Your task to perform on an android device: Open Google Chrome and open the bookmarks view Image 0: 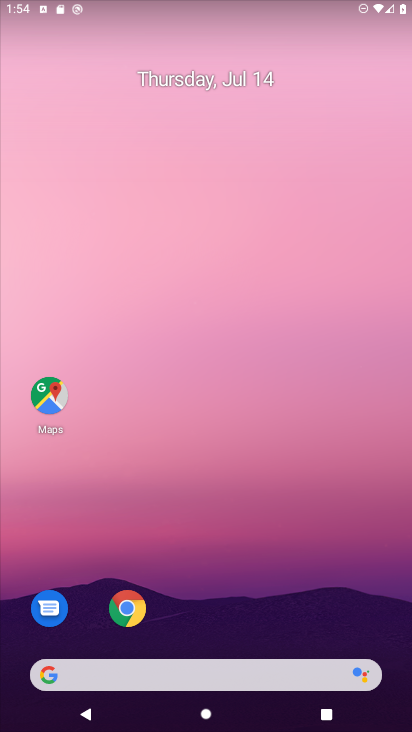
Step 0: click (126, 606)
Your task to perform on an android device: Open Google Chrome and open the bookmarks view Image 1: 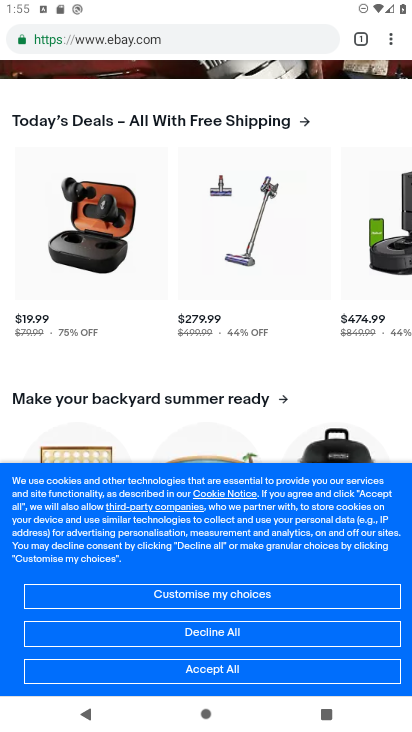
Step 1: click (389, 43)
Your task to perform on an android device: Open Google Chrome and open the bookmarks view Image 2: 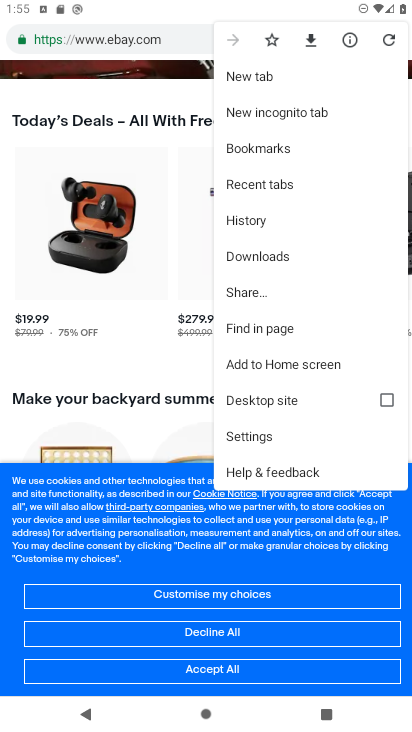
Step 2: click (249, 151)
Your task to perform on an android device: Open Google Chrome and open the bookmarks view Image 3: 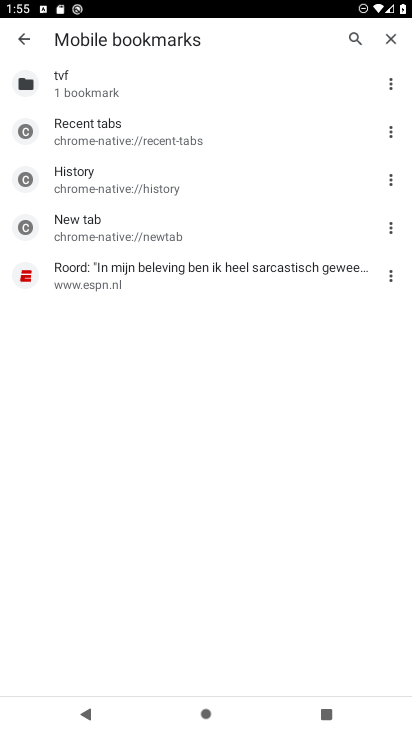
Step 3: task complete